Your task to perform on an android device: Search for hotels in San Francisco Image 0: 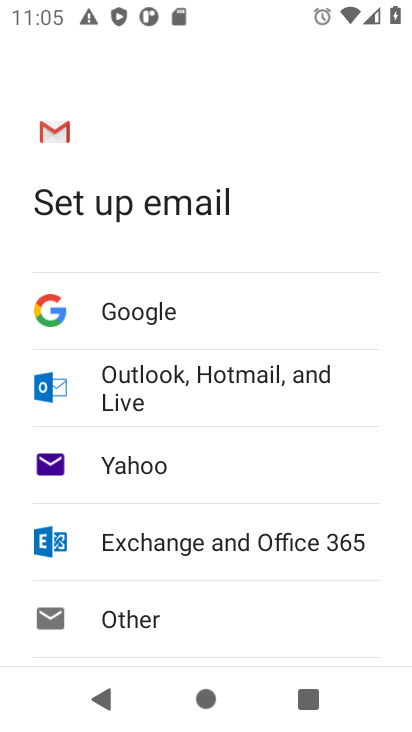
Step 0: press home button
Your task to perform on an android device: Search for hotels in San Francisco Image 1: 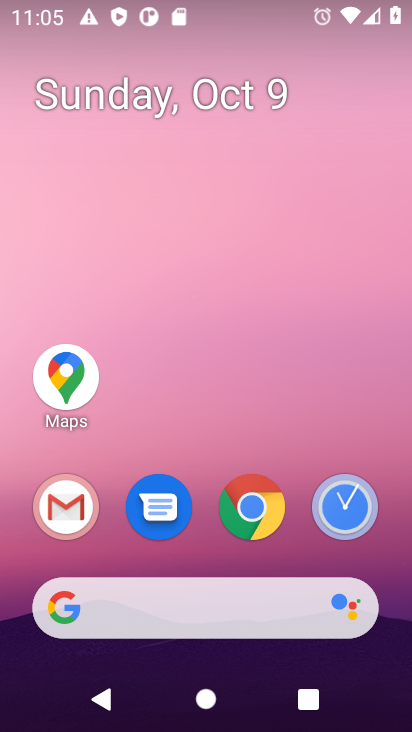
Step 1: click (249, 602)
Your task to perform on an android device: Search for hotels in San Francisco Image 2: 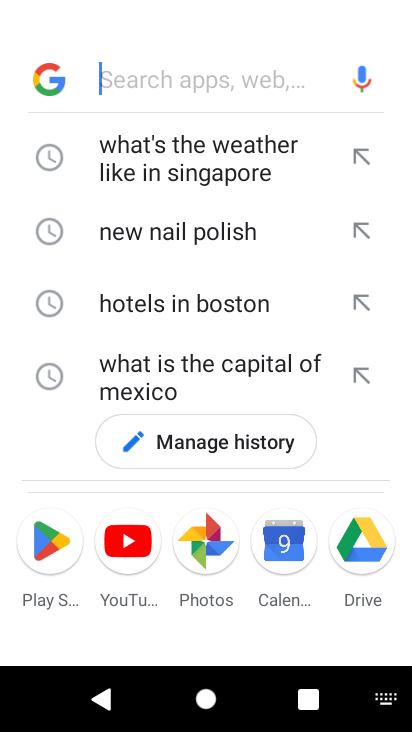
Step 2: type "hotels in San Francisco"
Your task to perform on an android device: Search for hotels in San Francisco Image 3: 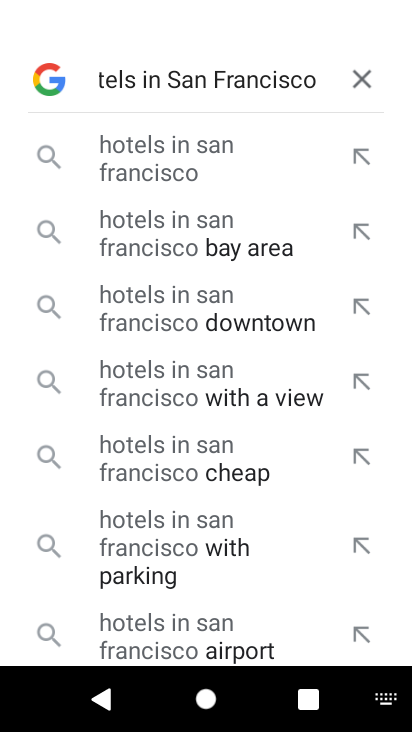
Step 3: press enter
Your task to perform on an android device: Search for hotels in San Francisco Image 4: 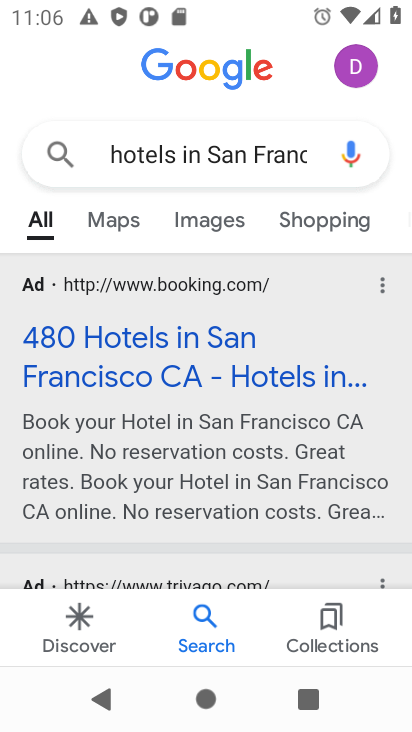
Step 4: drag from (303, 489) to (287, 362)
Your task to perform on an android device: Search for hotels in San Francisco Image 5: 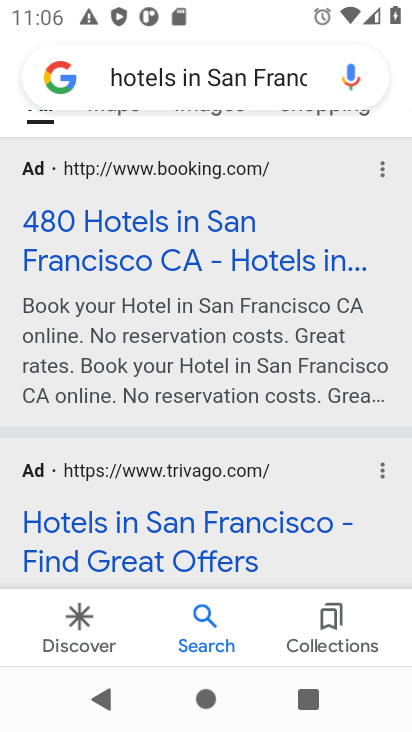
Step 5: click (225, 258)
Your task to perform on an android device: Search for hotels in San Francisco Image 6: 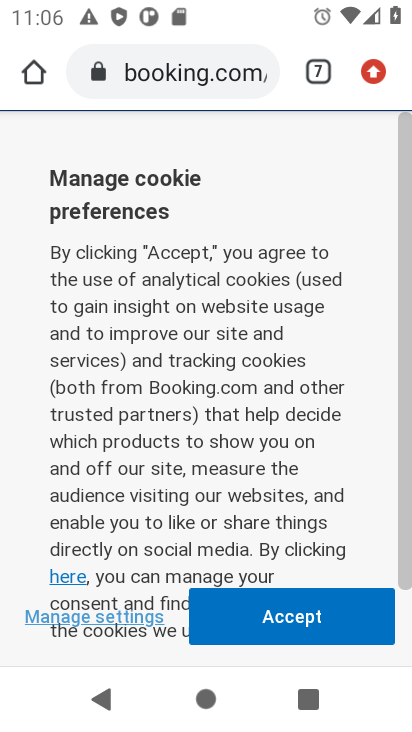
Step 6: click (276, 609)
Your task to perform on an android device: Search for hotels in San Francisco Image 7: 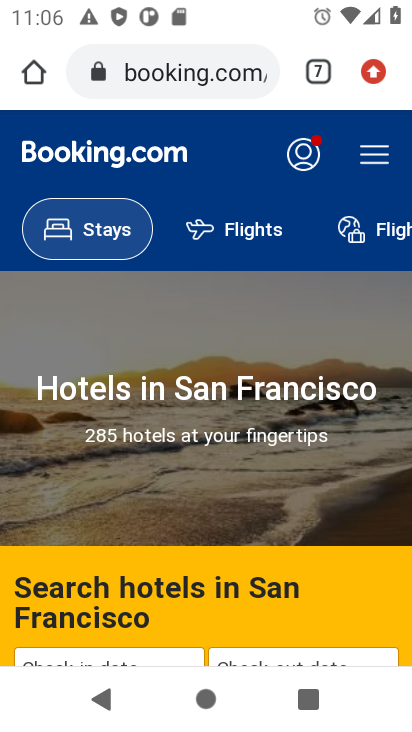
Step 7: drag from (275, 591) to (281, 288)
Your task to perform on an android device: Search for hotels in San Francisco Image 8: 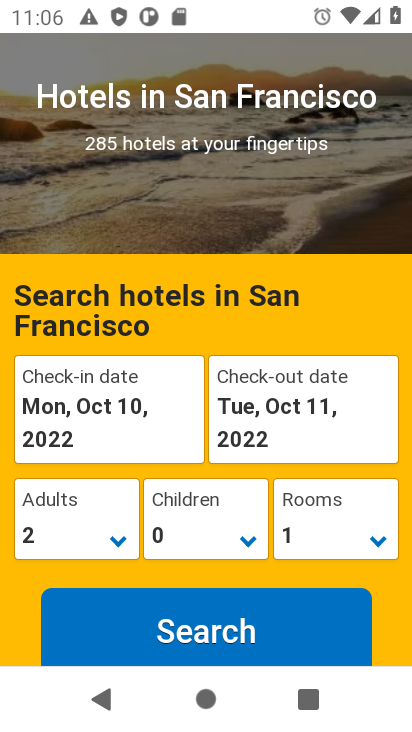
Step 8: click (205, 640)
Your task to perform on an android device: Search for hotels in San Francisco Image 9: 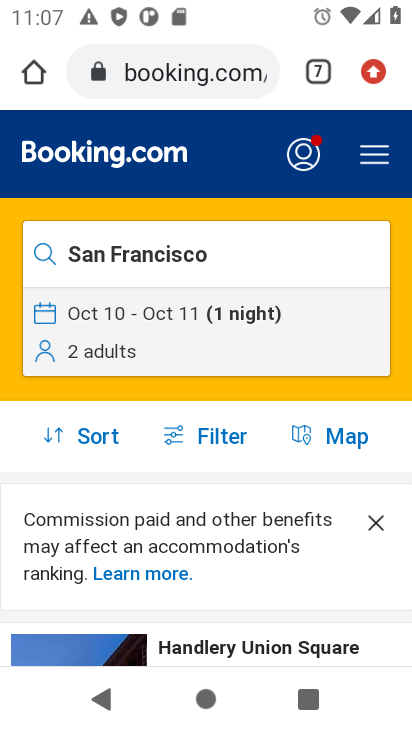
Step 9: task complete